Your task to perform on an android device: move a message to another label in the gmail app Image 0: 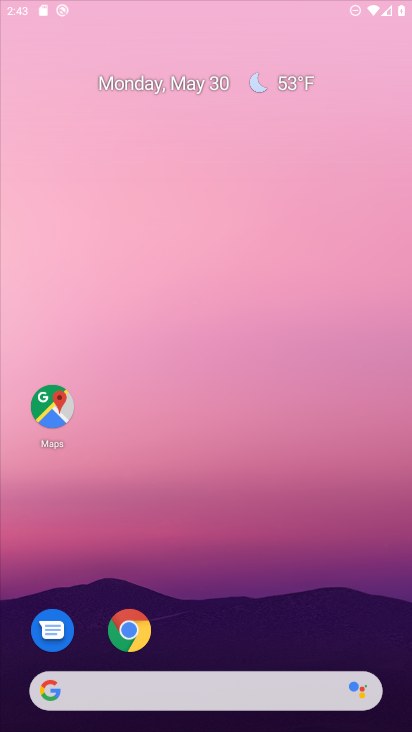
Step 0: drag from (215, 678) to (238, 108)
Your task to perform on an android device: move a message to another label in the gmail app Image 1: 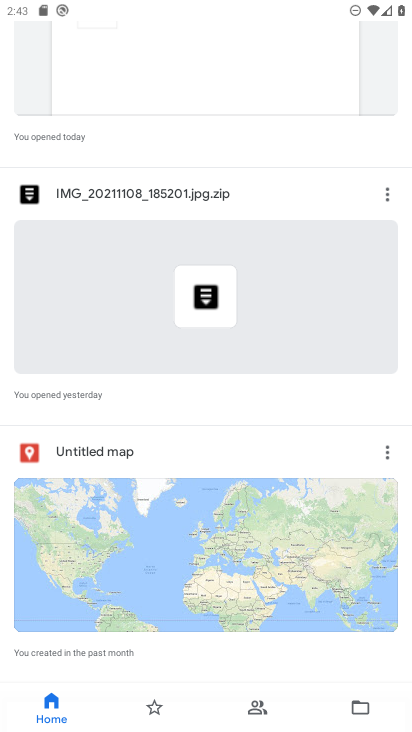
Step 1: press home button
Your task to perform on an android device: move a message to another label in the gmail app Image 2: 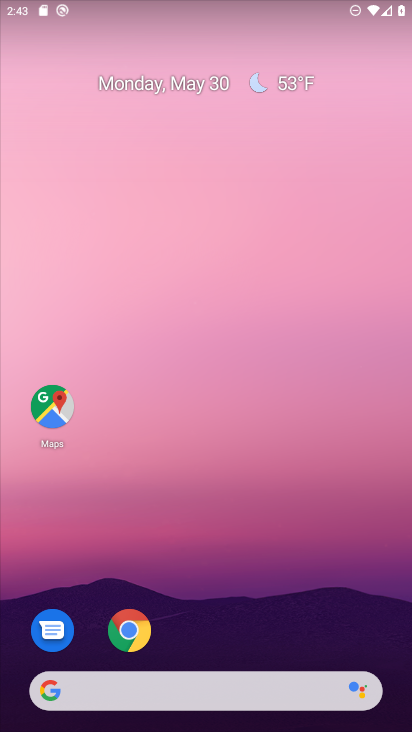
Step 2: drag from (235, 674) to (206, 81)
Your task to perform on an android device: move a message to another label in the gmail app Image 3: 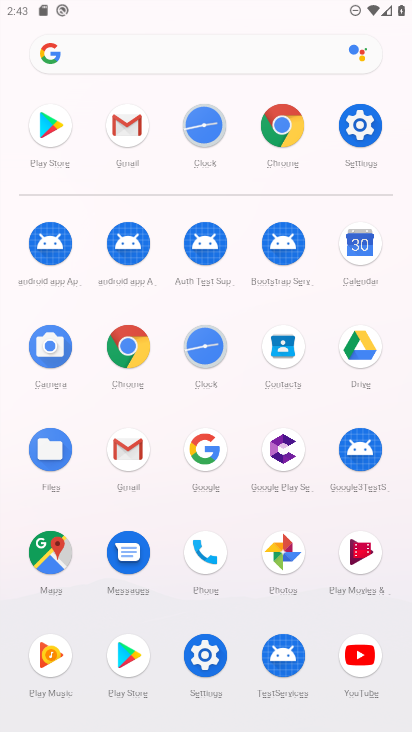
Step 3: click (124, 441)
Your task to perform on an android device: move a message to another label in the gmail app Image 4: 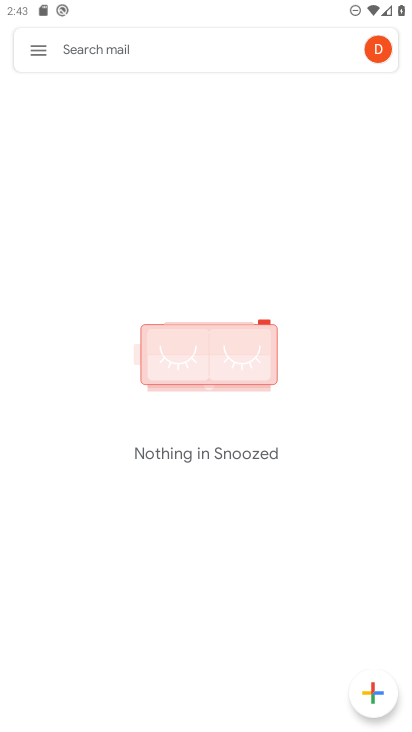
Step 4: click (31, 53)
Your task to perform on an android device: move a message to another label in the gmail app Image 5: 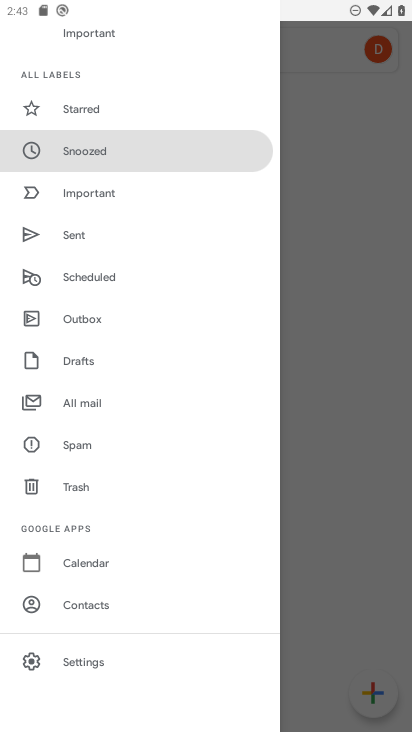
Step 5: click (80, 404)
Your task to perform on an android device: move a message to another label in the gmail app Image 6: 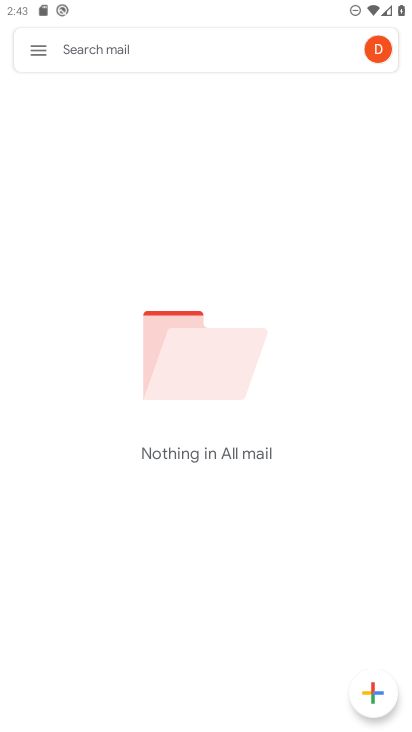
Step 6: task complete